Your task to perform on an android device: When is my next meeting? Image 0: 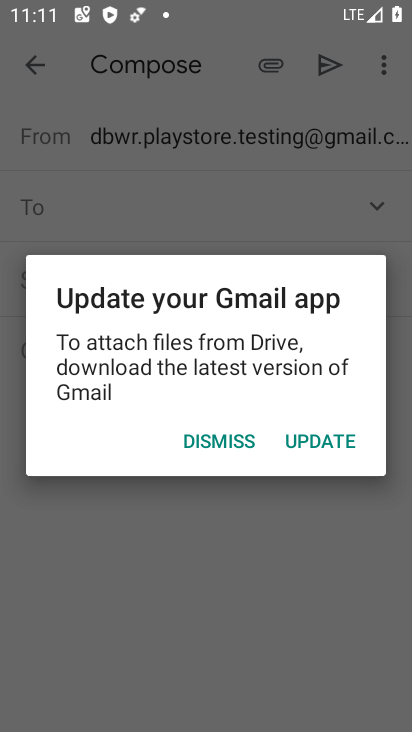
Step 0: press home button
Your task to perform on an android device: When is my next meeting? Image 1: 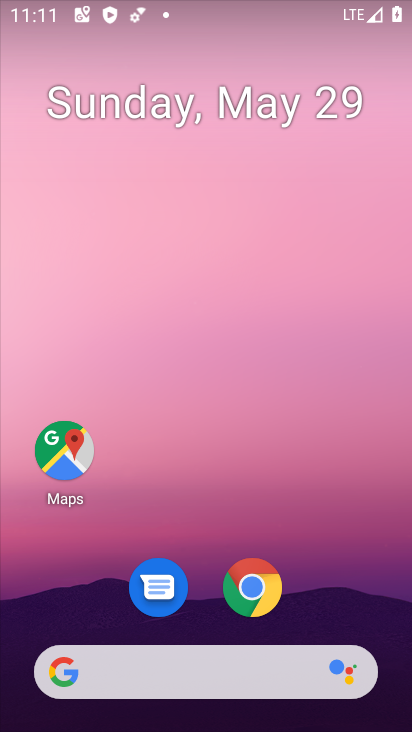
Step 1: drag from (279, 380) to (257, 78)
Your task to perform on an android device: When is my next meeting? Image 2: 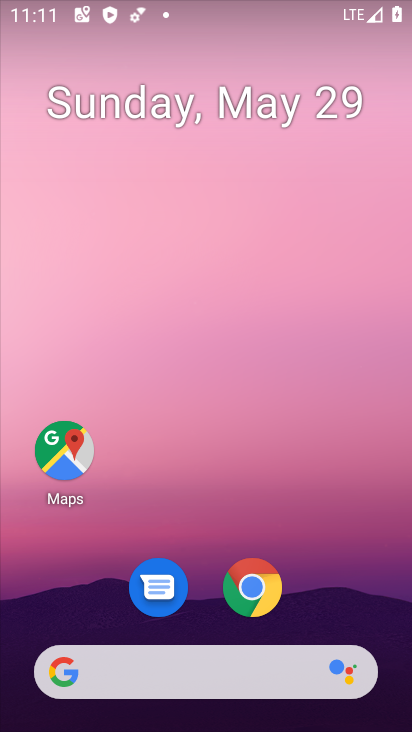
Step 2: drag from (334, 565) to (201, 139)
Your task to perform on an android device: When is my next meeting? Image 3: 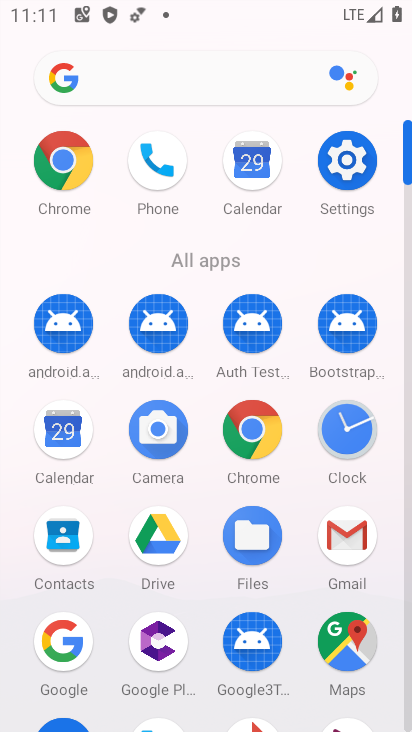
Step 3: click (69, 443)
Your task to perform on an android device: When is my next meeting? Image 4: 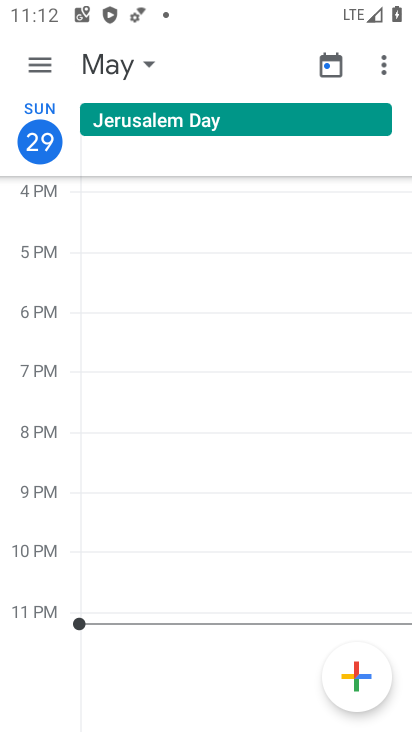
Step 4: click (52, 67)
Your task to perform on an android device: When is my next meeting? Image 5: 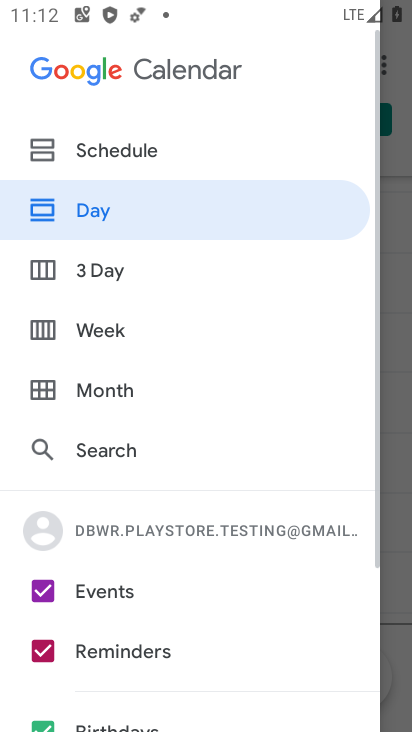
Step 5: click (90, 259)
Your task to perform on an android device: When is my next meeting? Image 6: 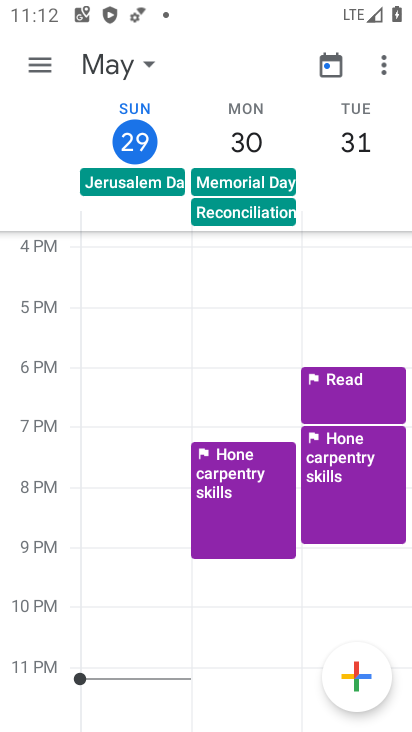
Step 6: task complete